Your task to perform on an android device: toggle wifi Image 0: 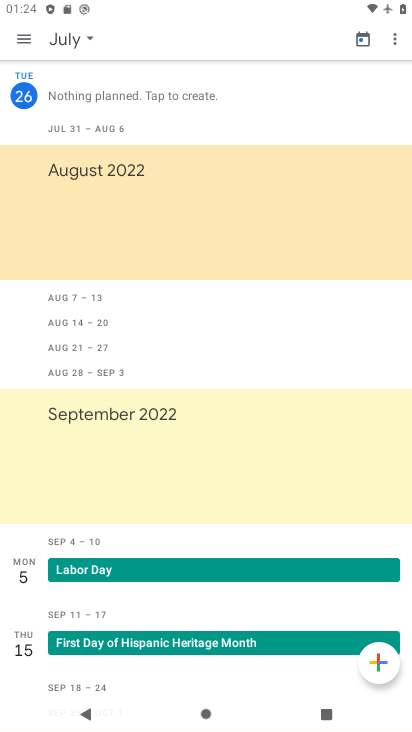
Step 0: press home button
Your task to perform on an android device: toggle wifi Image 1: 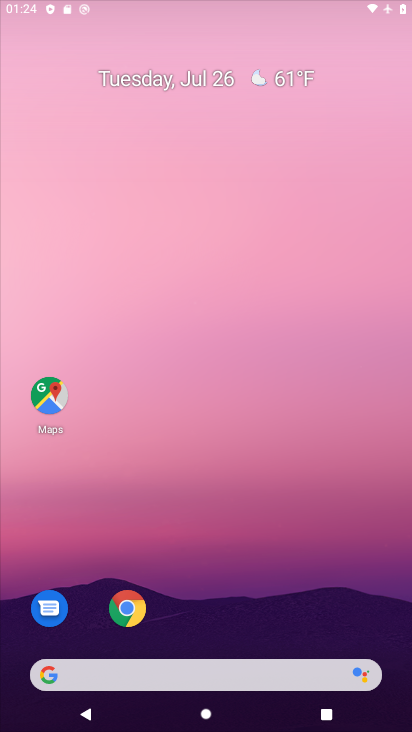
Step 1: drag from (238, 416) to (250, 131)
Your task to perform on an android device: toggle wifi Image 2: 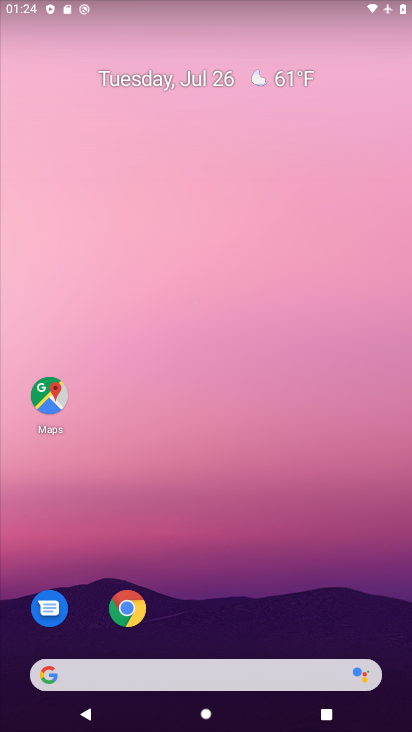
Step 2: drag from (218, 514) to (263, 127)
Your task to perform on an android device: toggle wifi Image 3: 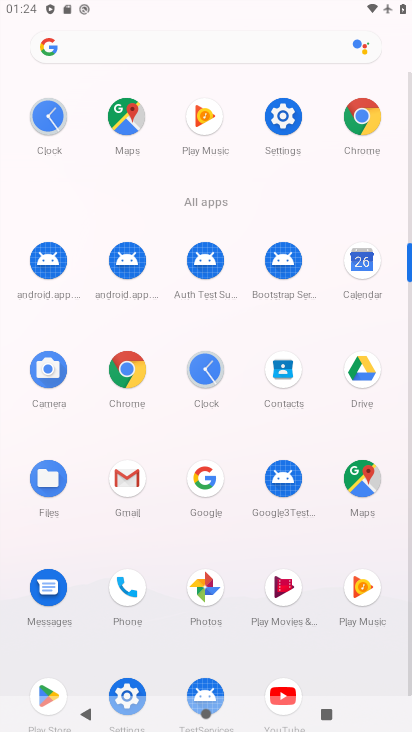
Step 3: click (287, 130)
Your task to perform on an android device: toggle wifi Image 4: 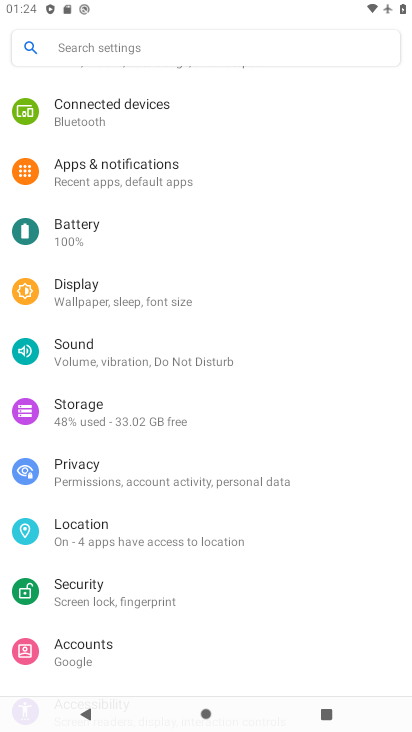
Step 4: drag from (129, 406) to (141, 191)
Your task to perform on an android device: toggle wifi Image 5: 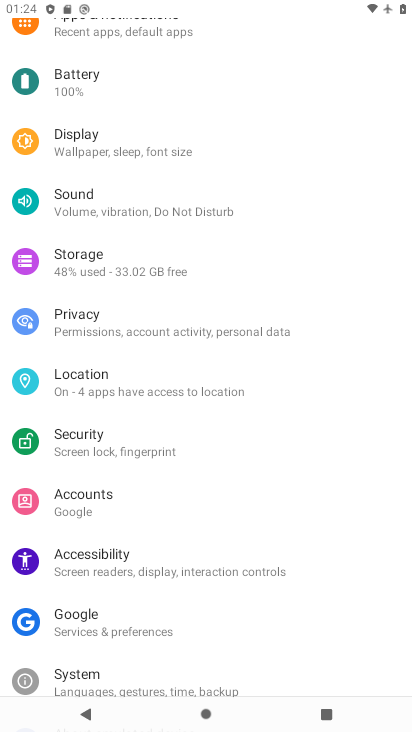
Step 5: drag from (209, 120) to (175, 528)
Your task to perform on an android device: toggle wifi Image 6: 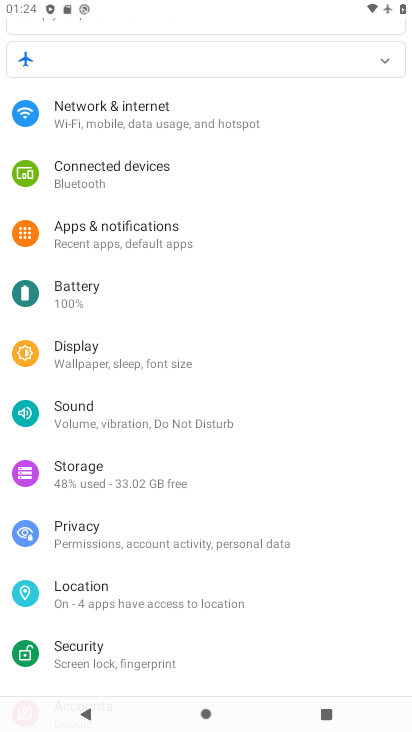
Step 6: click (183, 127)
Your task to perform on an android device: toggle wifi Image 7: 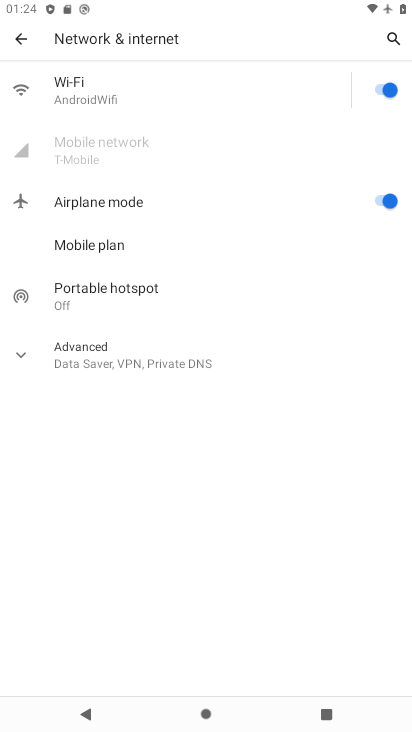
Step 7: click (395, 89)
Your task to perform on an android device: toggle wifi Image 8: 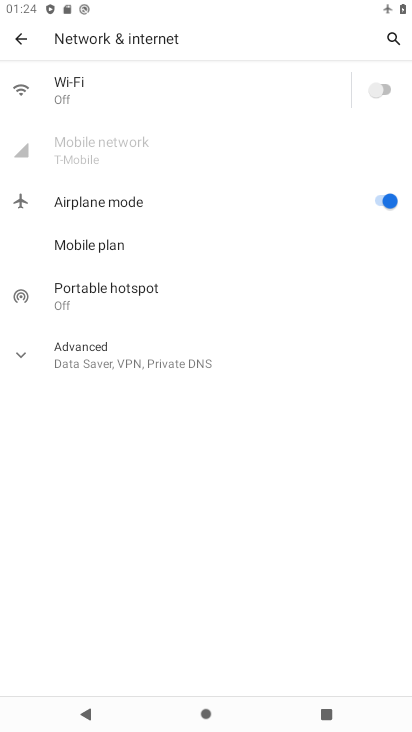
Step 8: task complete